Your task to perform on an android device: toggle data saver in the chrome app Image 0: 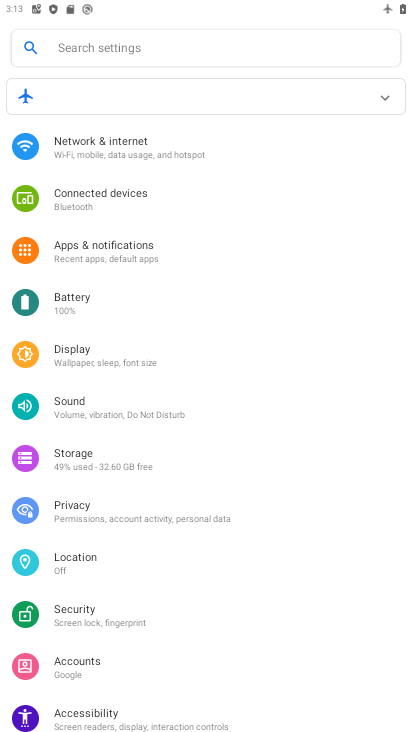
Step 0: press home button
Your task to perform on an android device: toggle data saver in the chrome app Image 1: 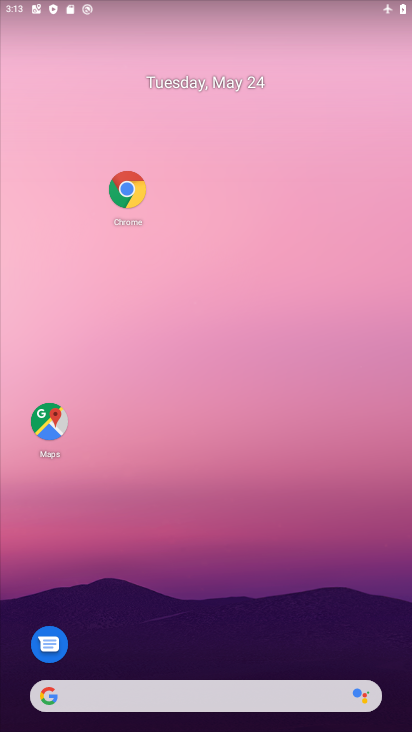
Step 1: click (126, 194)
Your task to perform on an android device: toggle data saver in the chrome app Image 2: 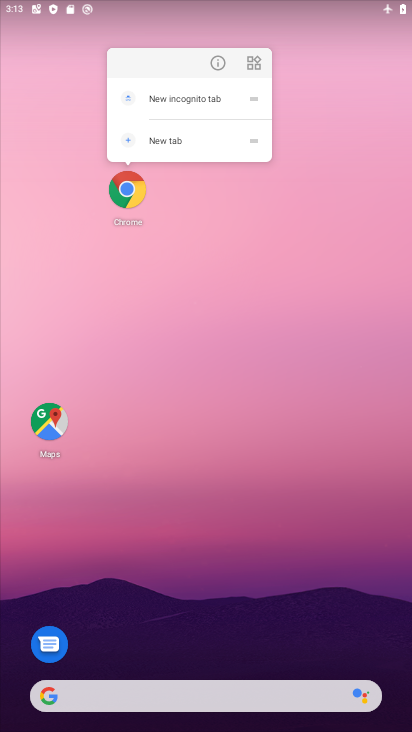
Step 2: click (126, 194)
Your task to perform on an android device: toggle data saver in the chrome app Image 3: 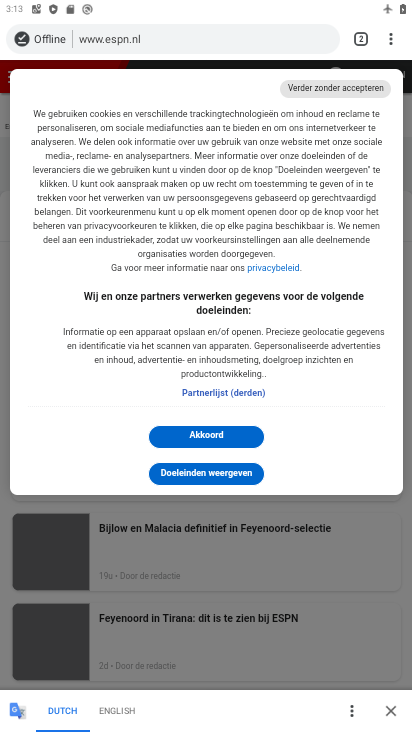
Step 3: click (386, 44)
Your task to perform on an android device: toggle data saver in the chrome app Image 4: 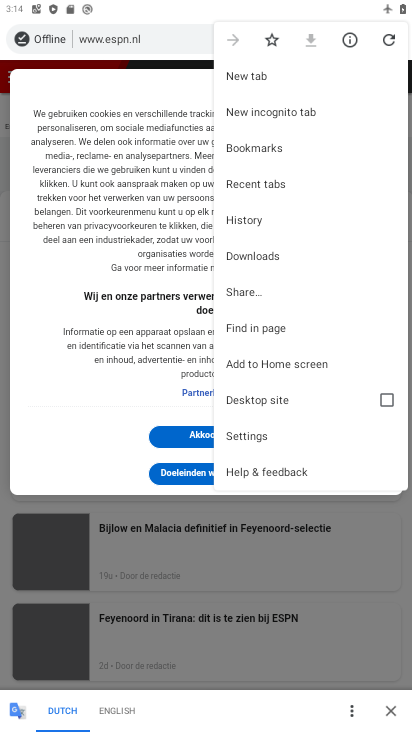
Step 4: click (248, 430)
Your task to perform on an android device: toggle data saver in the chrome app Image 5: 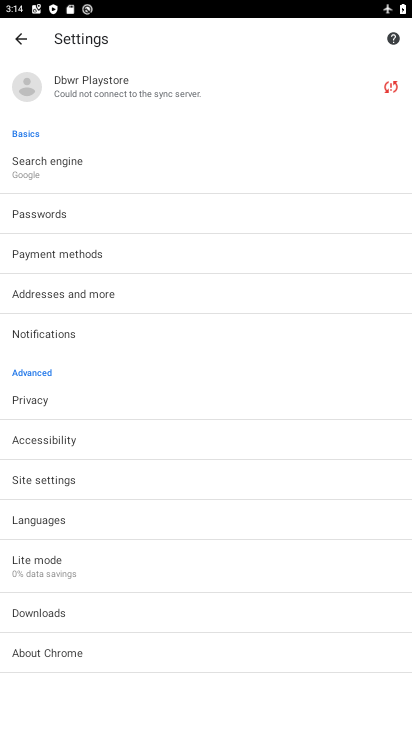
Step 5: click (51, 565)
Your task to perform on an android device: toggle data saver in the chrome app Image 6: 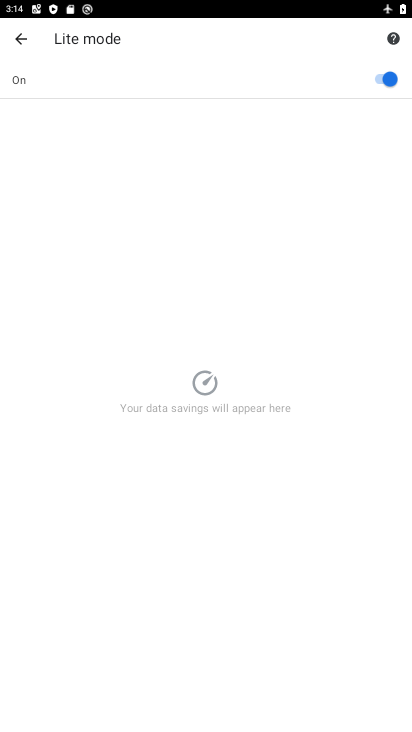
Step 6: click (388, 79)
Your task to perform on an android device: toggle data saver in the chrome app Image 7: 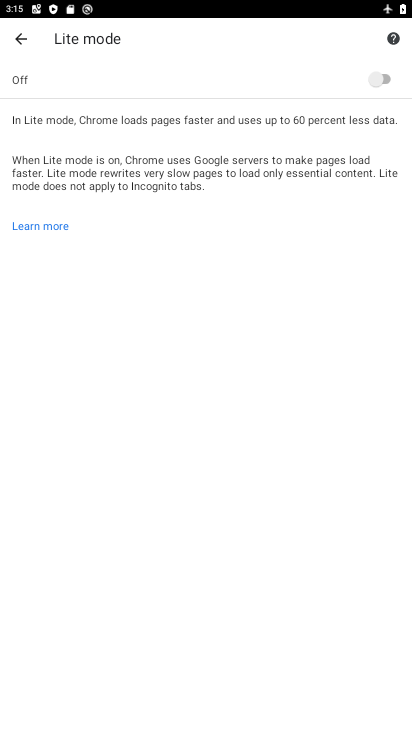
Step 7: task complete